Your task to perform on an android device: turn on priority inbox in the gmail app Image 0: 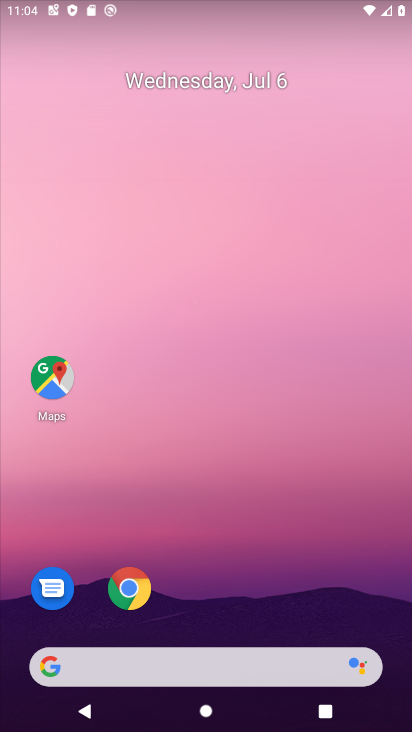
Step 0: drag from (268, 623) to (264, 303)
Your task to perform on an android device: turn on priority inbox in the gmail app Image 1: 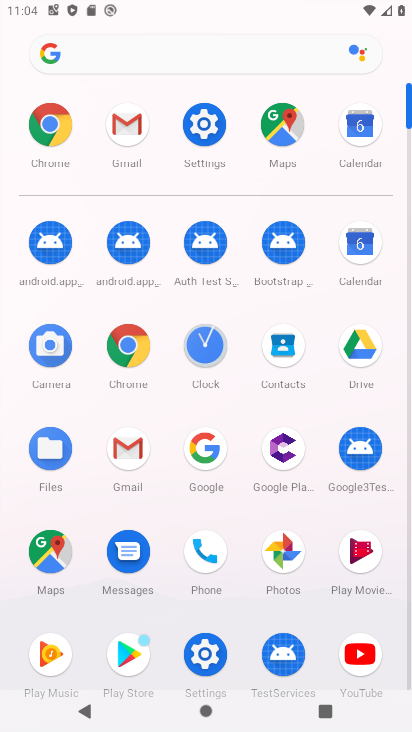
Step 1: click (132, 451)
Your task to perform on an android device: turn on priority inbox in the gmail app Image 2: 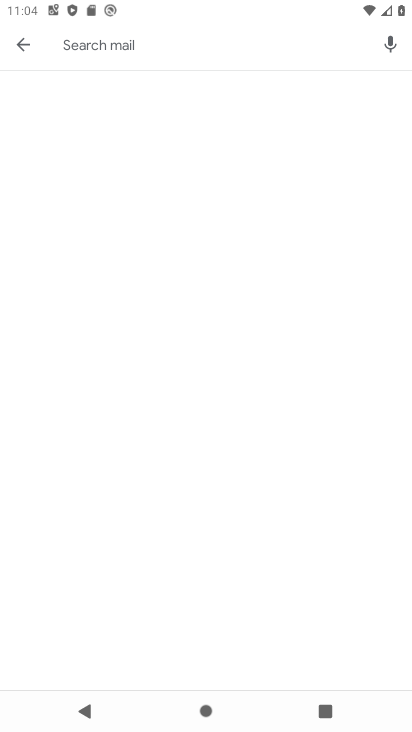
Step 2: press home button
Your task to perform on an android device: turn on priority inbox in the gmail app Image 3: 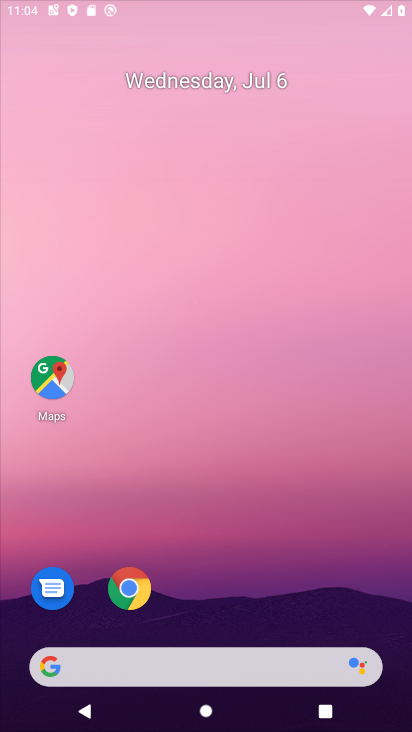
Step 3: drag from (256, 585) to (264, 251)
Your task to perform on an android device: turn on priority inbox in the gmail app Image 4: 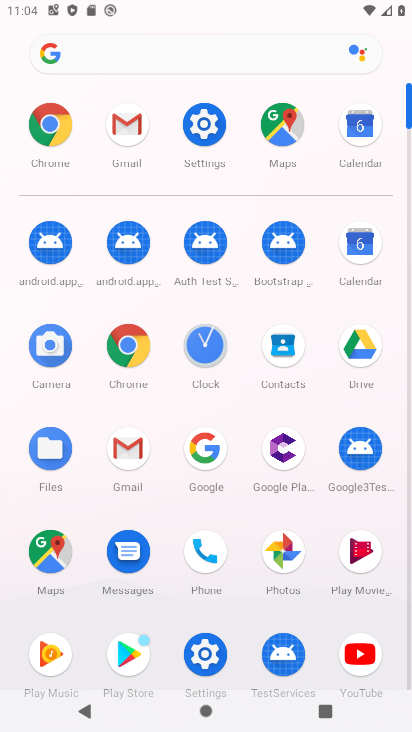
Step 4: click (126, 117)
Your task to perform on an android device: turn on priority inbox in the gmail app Image 5: 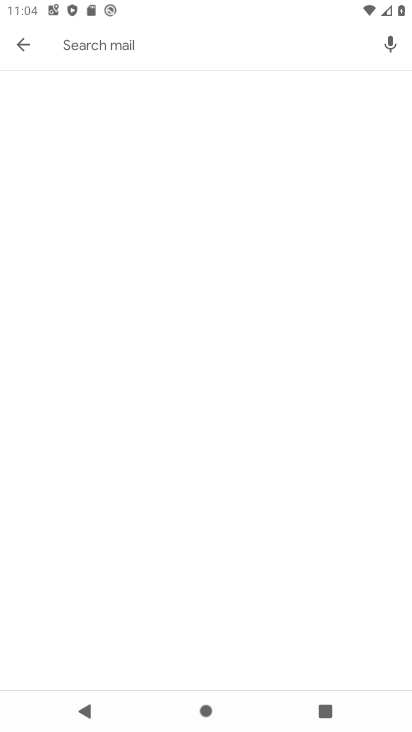
Step 5: click (17, 46)
Your task to perform on an android device: turn on priority inbox in the gmail app Image 6: 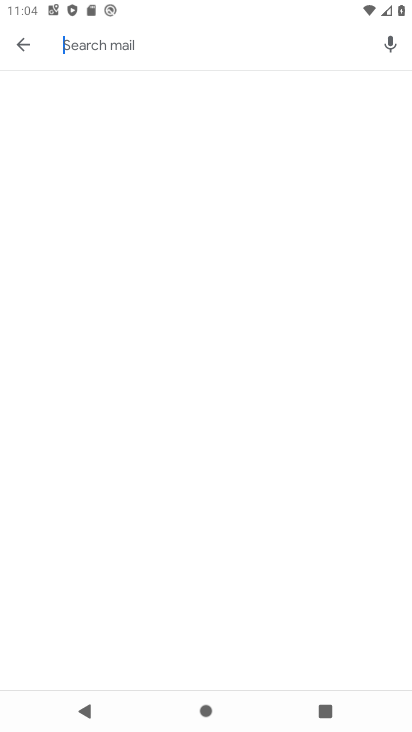
Step 6: click (17, 46)
Your task to perform on an android device: turn on priority inbox in the gmail app Image 7: 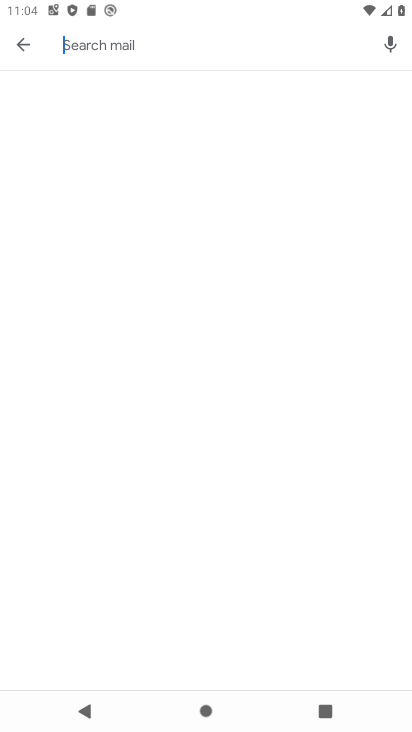
Step 7: click (17, 46)
Your task to perform on an android device: turn on priority inbox in the gmail app Image 8: 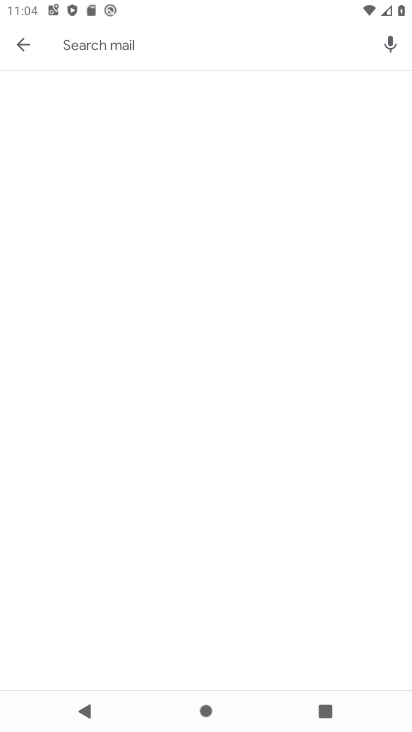
Step 8: click (17, 46)
Your task to perform on an android device: turn on priority inbox in the gmail app Image 9: 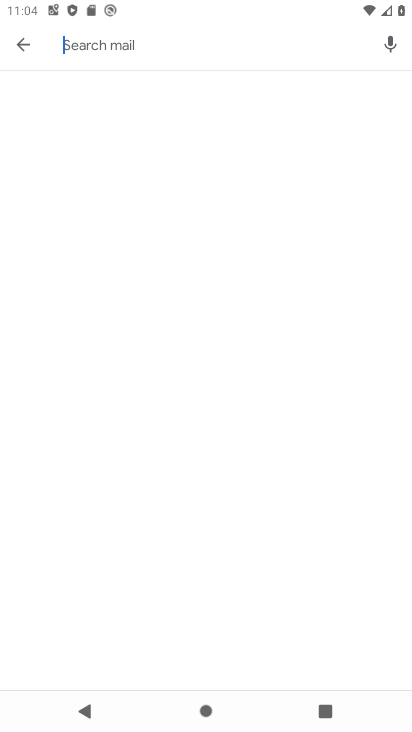
Step 9: click (26, 46)
Your task to perform on an android device: turn on priority inbox in the gmail app Image 10: 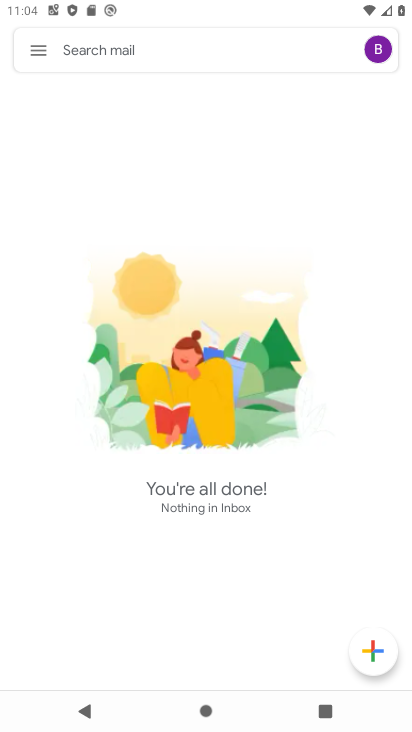
Step 10: click (26, 46)
Your task to perform on an android device: turn on priority inbox in the gmail app Image 11: 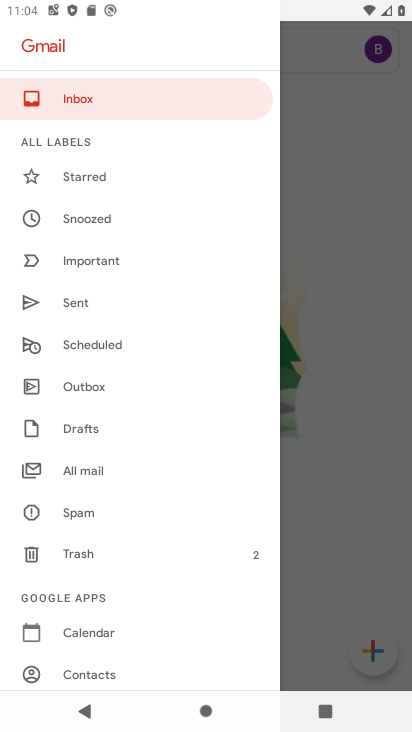
Step 11: drag from (107, 587) to (118, 227)
Your task to perform on an android device: turn on priority inbox in the gmail app Image 12: 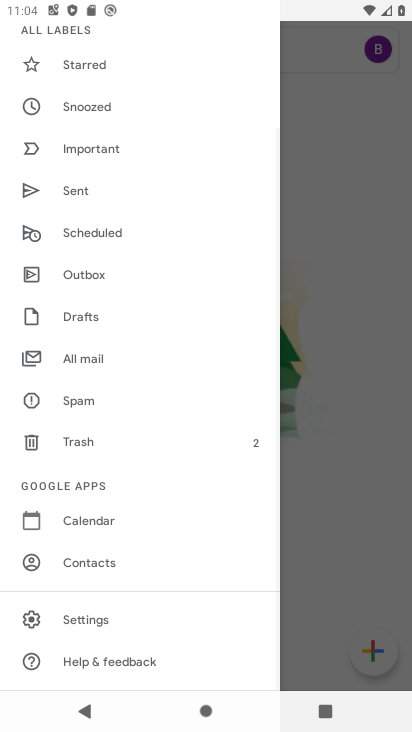
Step 12: drag from (116, 230) to (139, 256)
Your task to perform on an android device: turn on priority inbox in the gmail app Image 13: 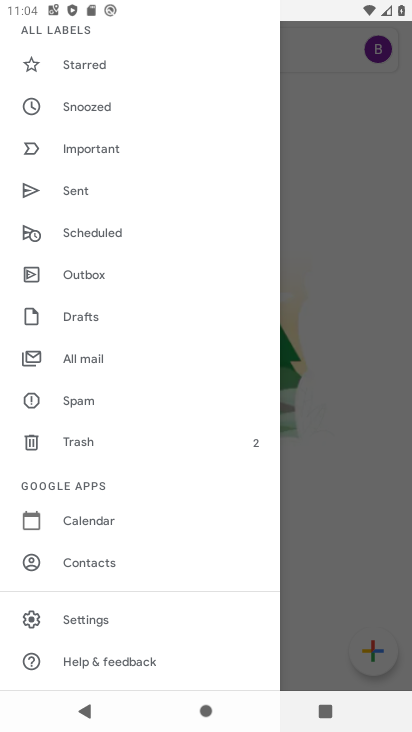
Step 13: click (115, 614)
Your task to perform on an android device: turn on priority inbox in the gmail app Image 14: 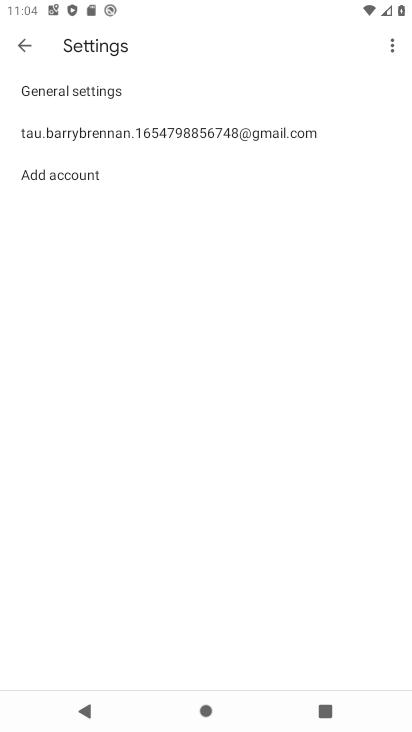
Step 14: click (104, 86)
Your task to perform on an android device: turn on priority inbox in the gmail app Image 15: 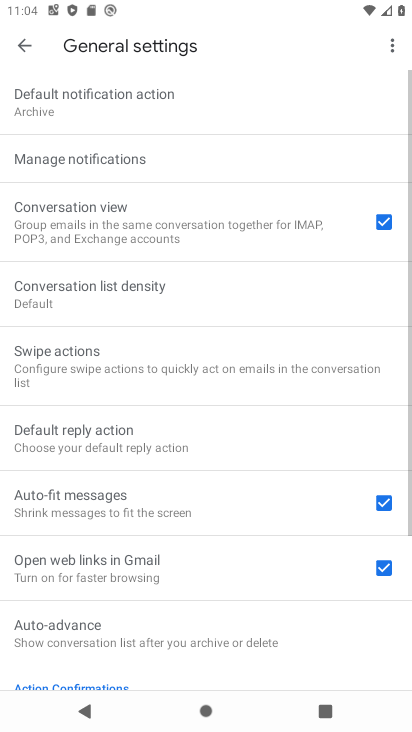
Step 15: click (22, 37)
Your task to perform on an android device: turn on priority inbox in the gmail app Image 16: 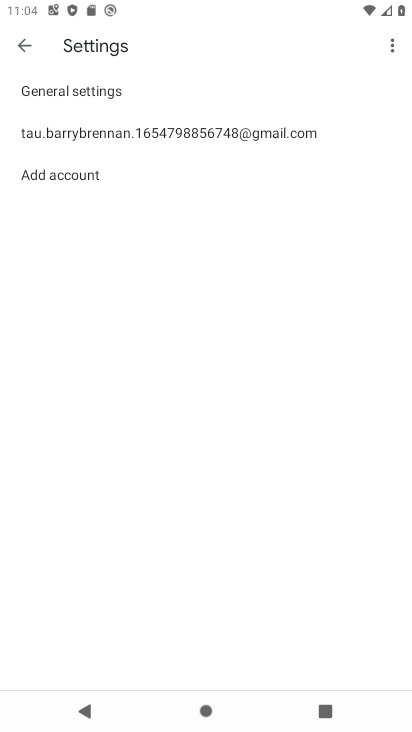
Step 16: click (78, 120)
Your task to perform on an android device: turn on priority inbox in the gmail app Image 17: 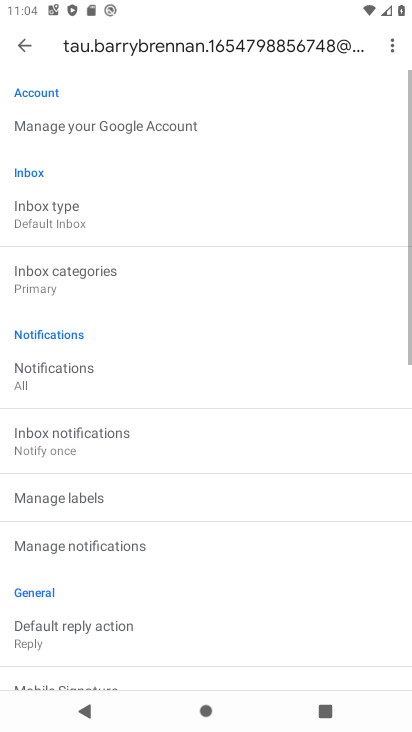
Step 17: click (72, 204)
Your task to perform on an android device: turn on priority inbox in the gmail app Image 18: 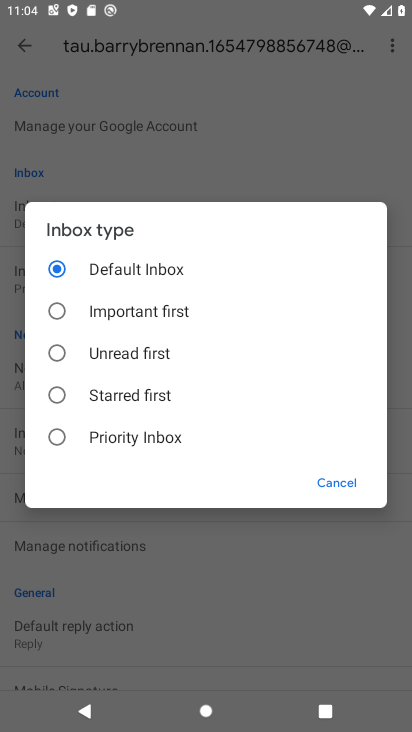
Step 18: click (121, 431)
Your task to perform on an android device: turn on priority inbox in the gmail app Image 19: 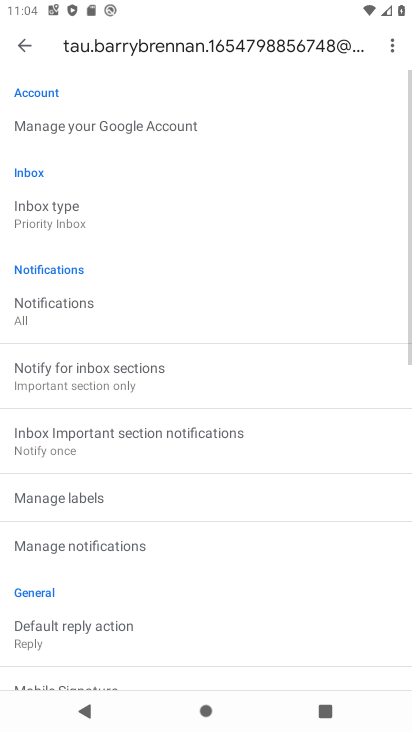
Step 19: task complete